Your task to perform on an android device: open chrome privacy settings Image 0: 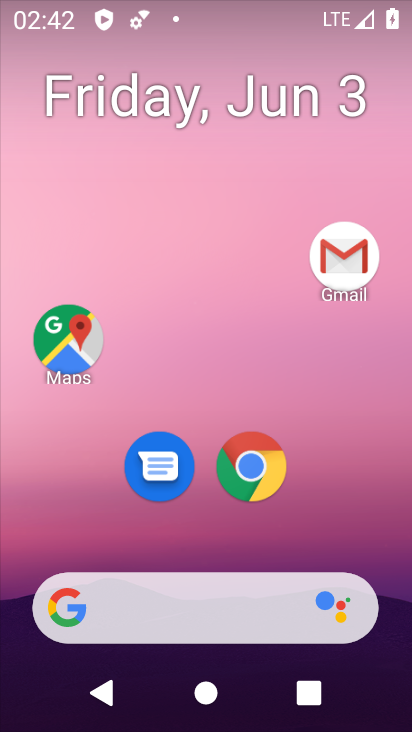
Step 0: click (259, 479)
Your task to perform on an android device: open chrome privacy settings Image 1: 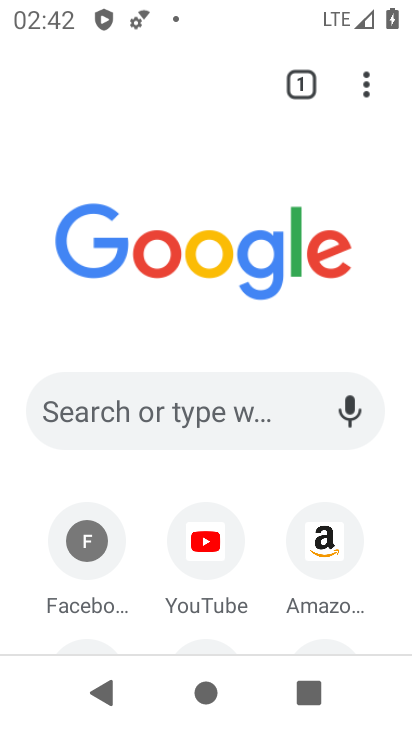
Step 1: click (363, 88)
Your task to perform on an android device: open chrome privacy settings Image 2: 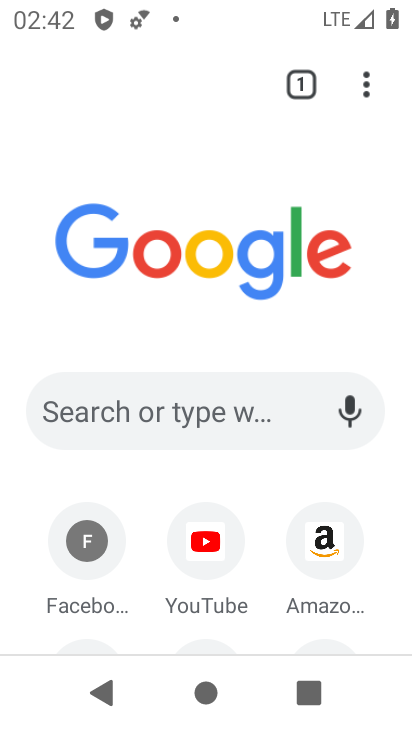
Step 2: click (369, 88)
Your task to perform on an android device: open chrome privacy settings Image 3: 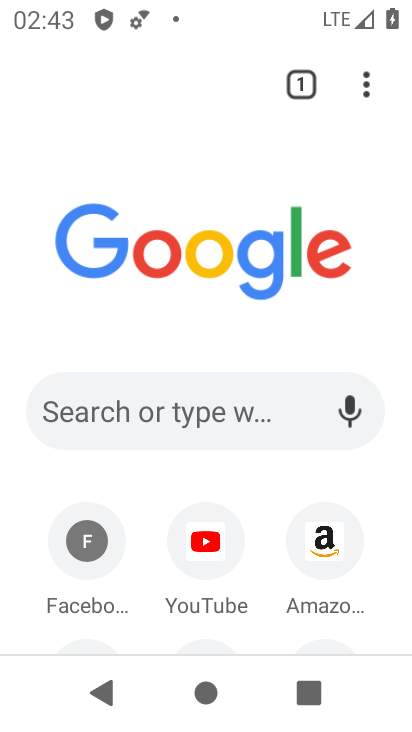
Step 3: click (361, 93)
Your task to perform on an android device: open chrome privacy settings Image 4: 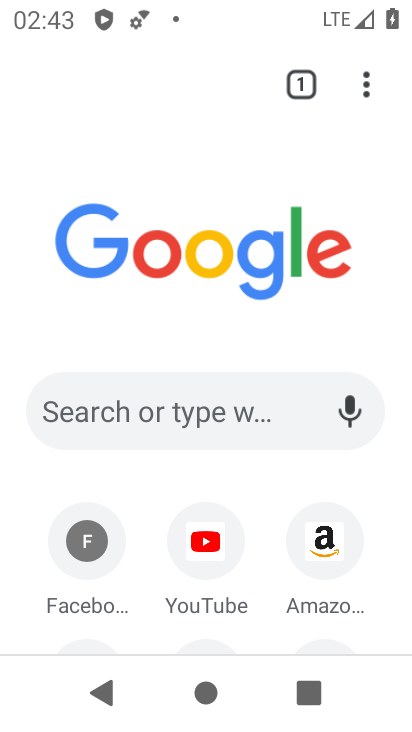
Step 4: click (369, 90)
Your task to perform on an android device: open chrome privacy settings Image 5: 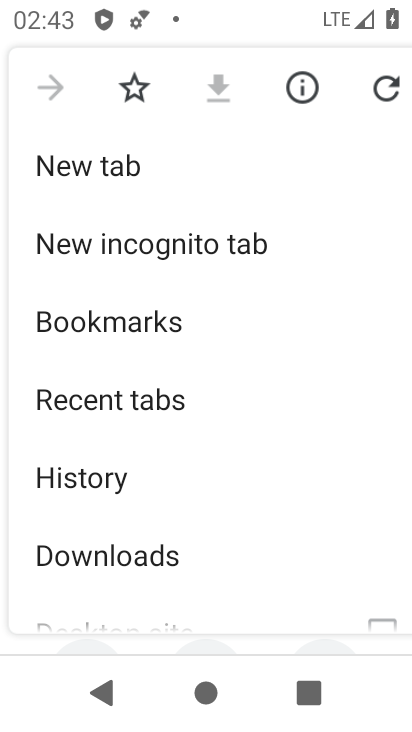
Step 5: drag from (152, 527) to (161, 323)
Your task to perform on an android device: open chrome privacy settings Image 6: 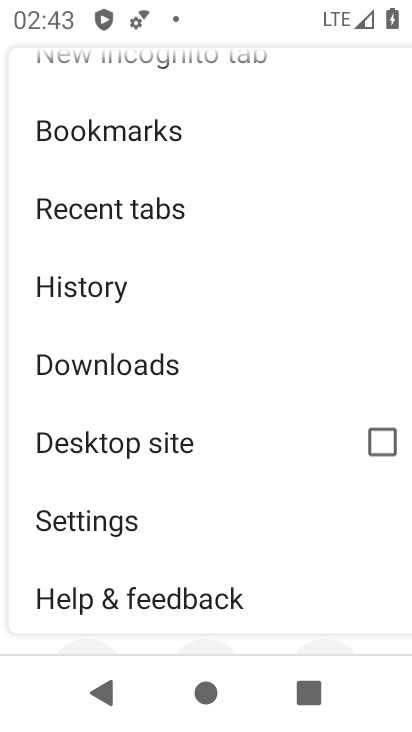
Step 6: click (84, 532)
Your task to perform on an android device: open chrome privacy settings Image 7: 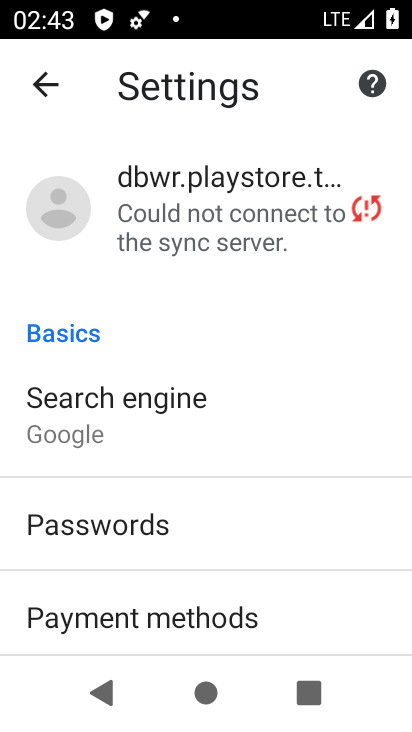
Step 7: drag from (99, 586) to (91, 325)
Your task to perform on an android device: open chrome privacy settings Image 8: 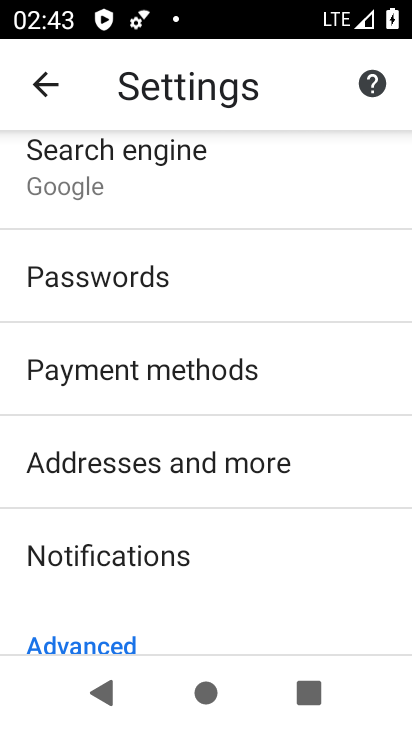
Step 8: drag from (104, 593) to (113, 279)
Your task to perform on an android device: open chrome privacy settings Image 9: 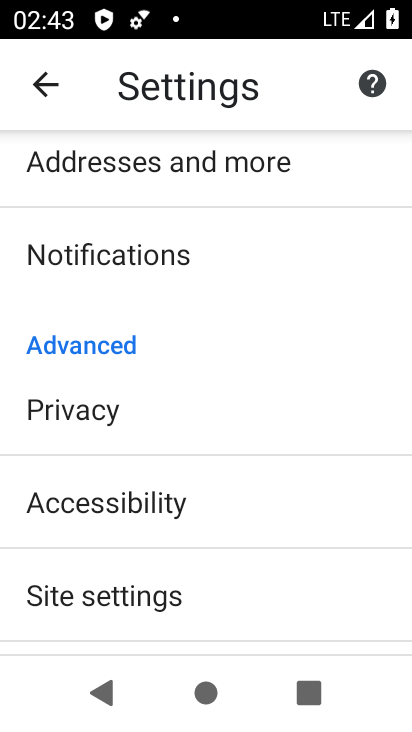
Step 9: click (91, 432)
Your task to perform on an android device: open chrome privacy settings Image 10: 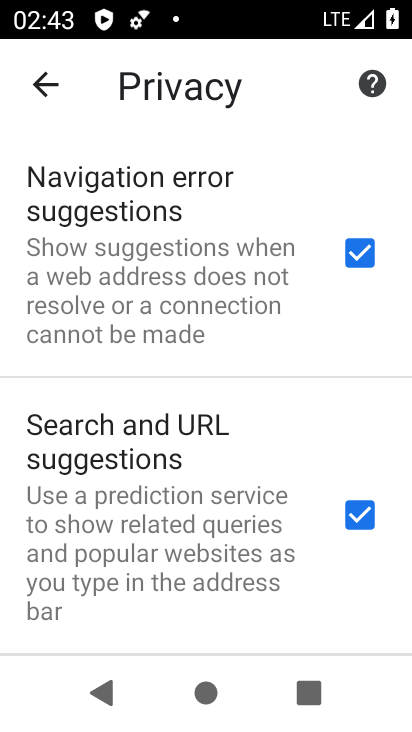
Step 10: task complete